Your task to perform on an android device: Open accessibility settings Image 0: 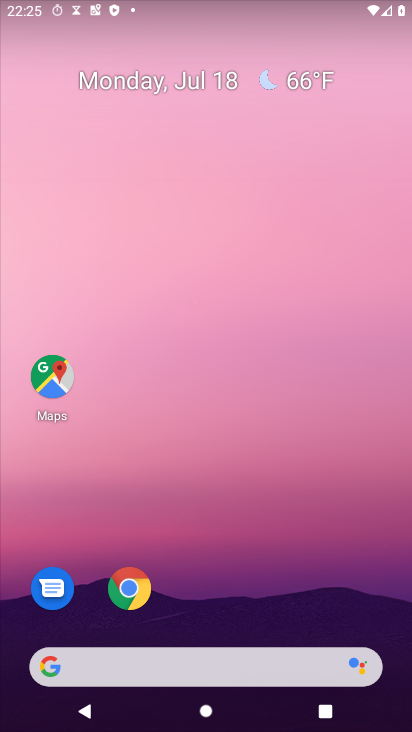
Step 0: drag from (157, 667) to (297, 83)
Your task to perform on an android device: Open accessibility settings Image 1: 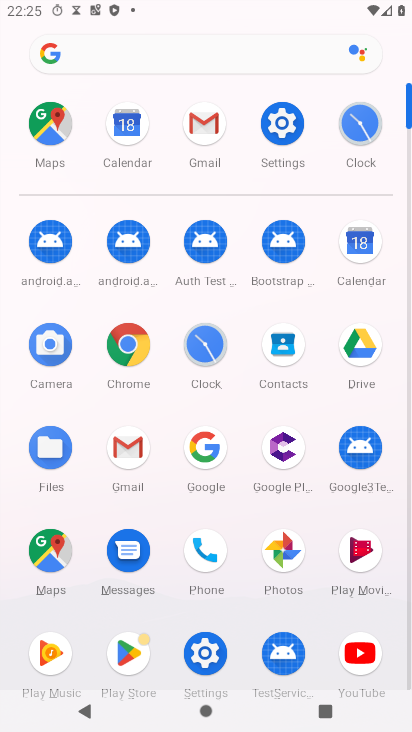
Step 1: click (280, 120)
Your task to perform on an android device: Open accessibility settings Image 2: 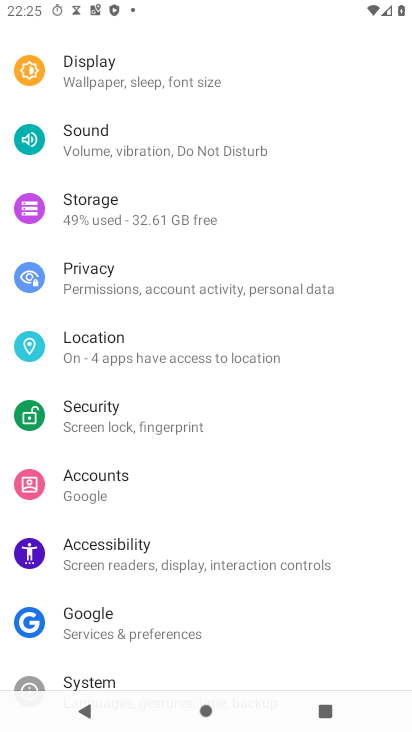
Step 2: click (167, 568)
Your task to perform on an android device: Open accessibility settings Image 3: 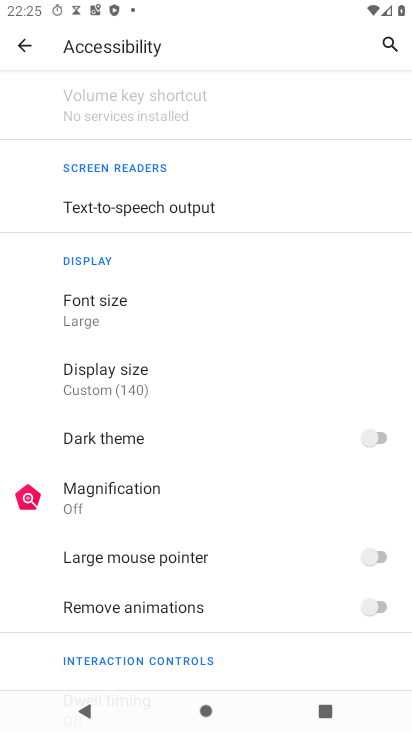
Step 3: task complete